Your task to perform on an android device: change notification settings in the gmail app Image 0: 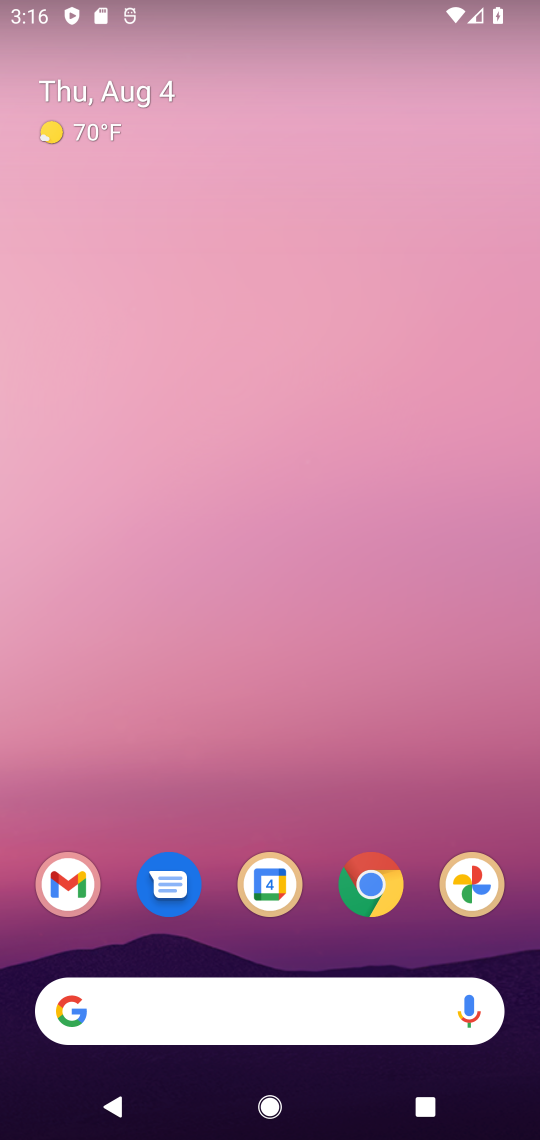
Step 0: drag from (213, 896) to (273, 43)
Your task to perform on an android device: change notification settings in the gmail app Image 1: 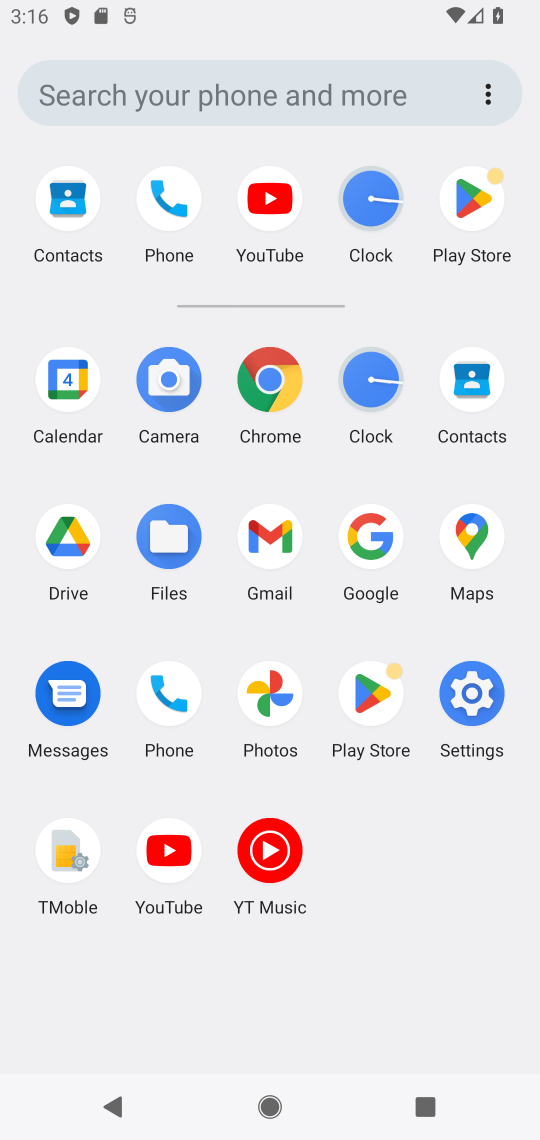
Step 1: click (277, 556)
Your task to perform on an android device: change notification settings in the gmail app Image 2: 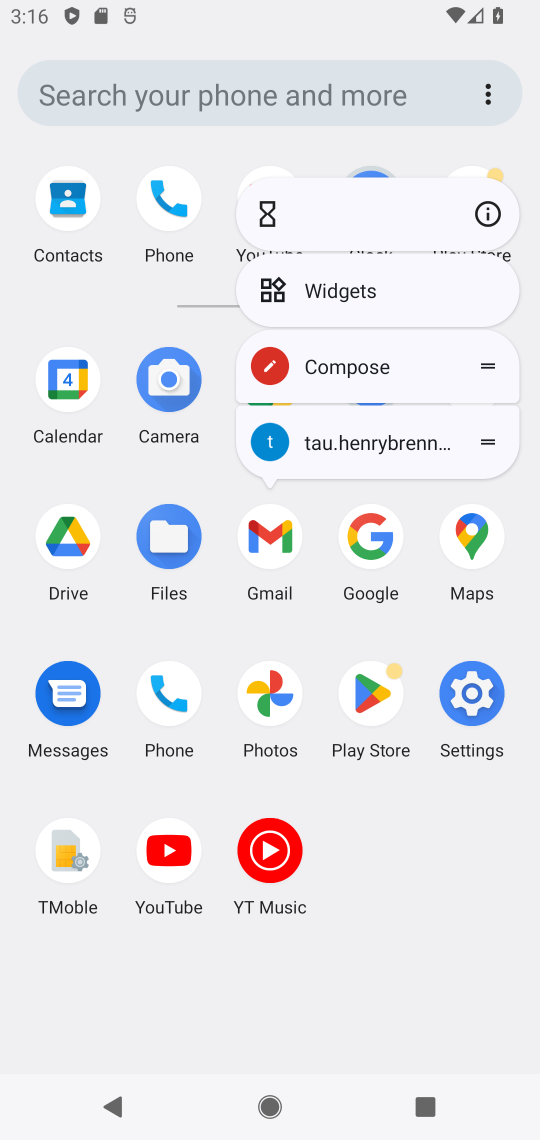
Step 2: click (283, 524)
Your task to perform on an android device: change notification settings in the gmail app Image 3: 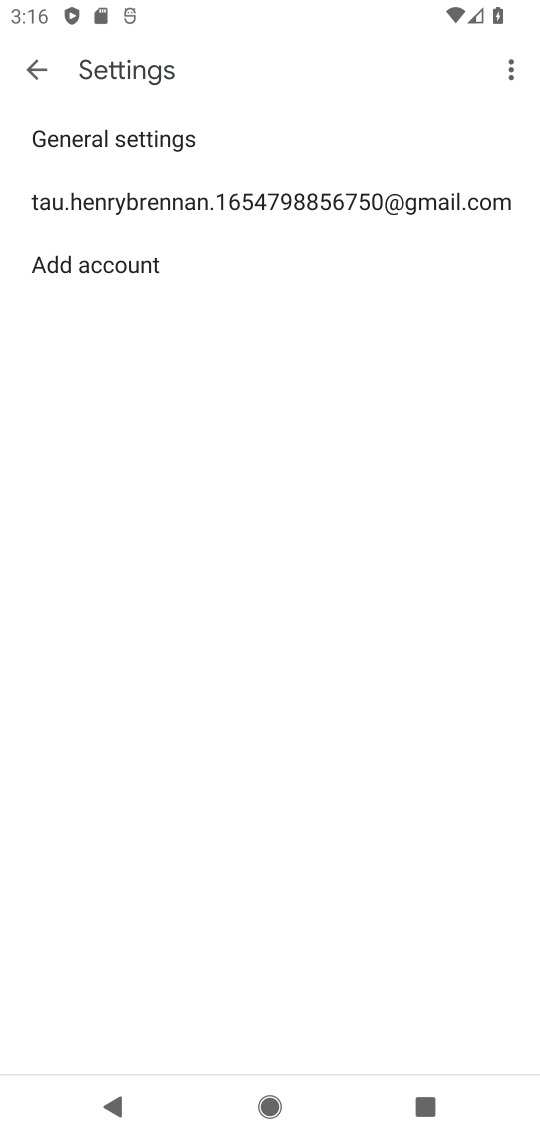
Step 3: click (89, 208)
Your task to perform on an android device: change notification settings in the gmail app Image 4: 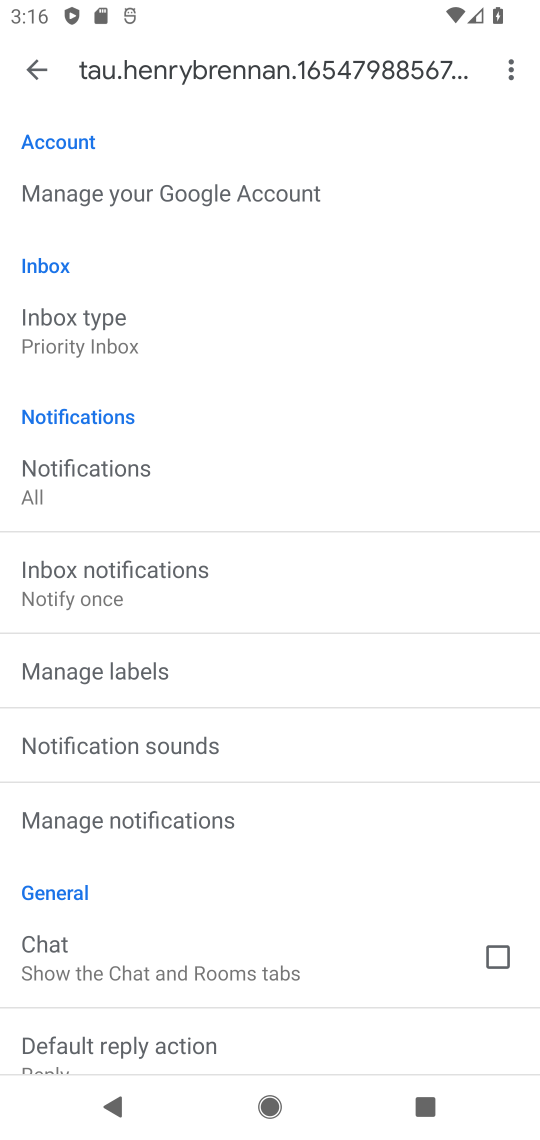
Step 4: click (107, 463)
Your task to perform on an android device: change notification settings in the gmail app Image 5: 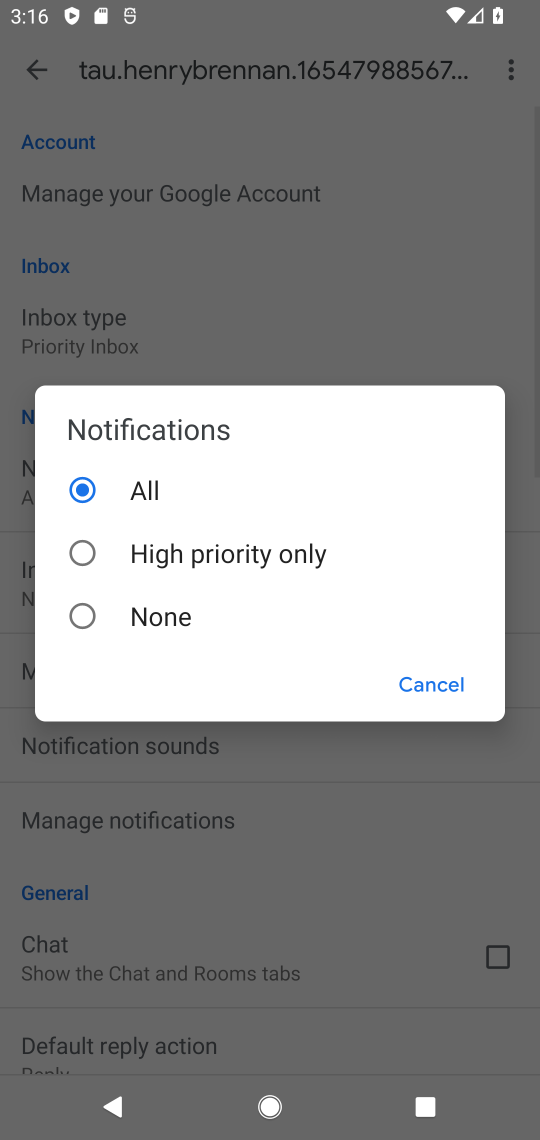
Step 5: click (124, 611)
Your task to perform on an android device: change notification settings in the gmail app Image 6: 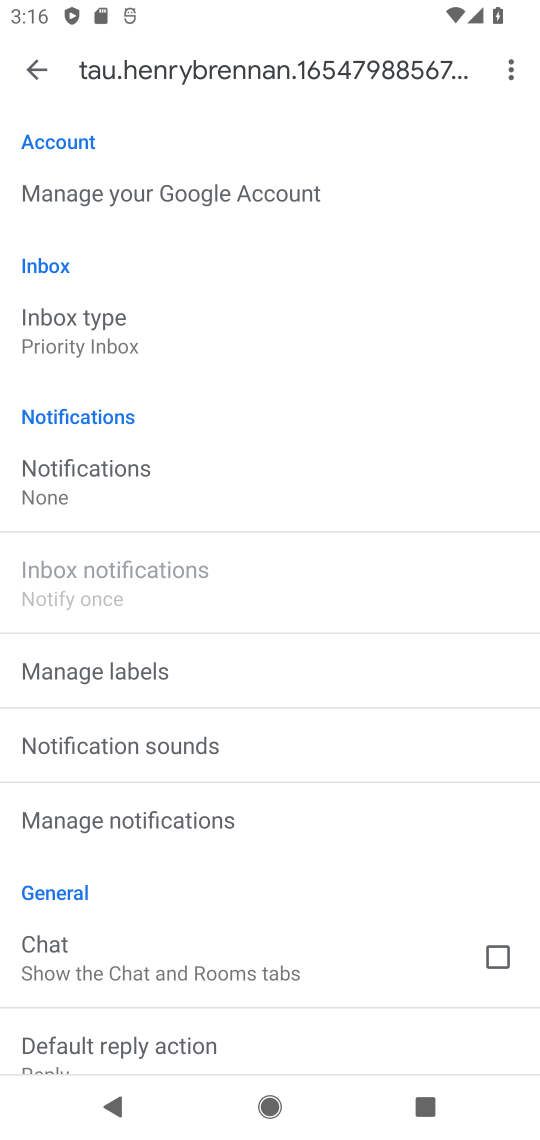
Step 6: task complete